Your task to perform on an android device: Open battery settings Image 0: 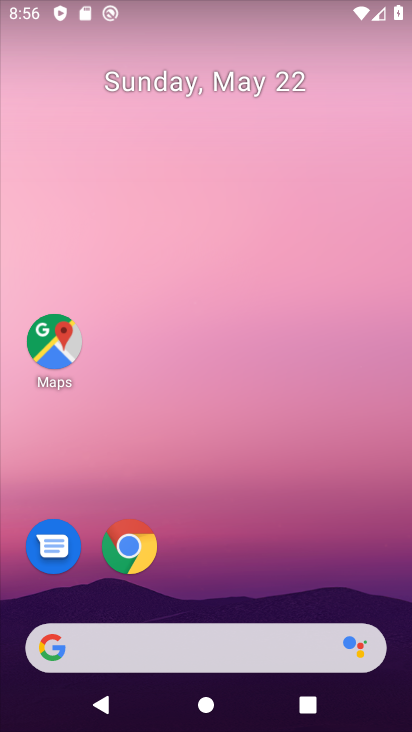
Step 0: drag from (198, 601) to (320, 0)
Your task to perform on an android device: Open battery settings Image 1: 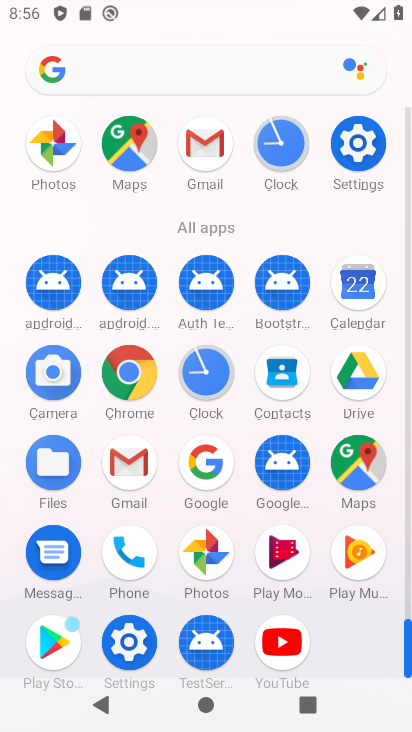
Step 1: click (360, 141)
Your task to perform on an android device: Open battery settings Image 2: 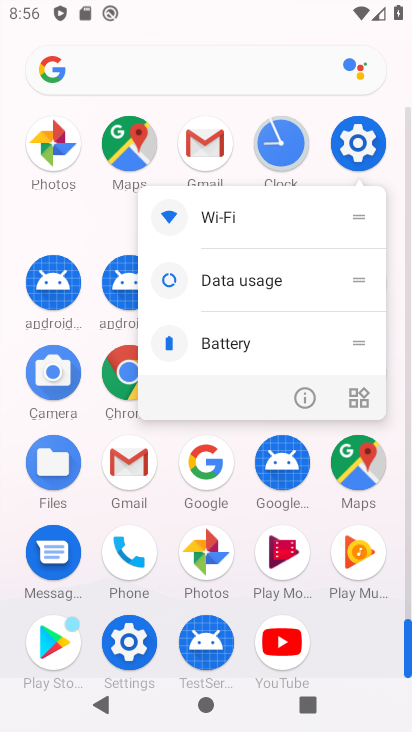
Step 2: click (299, 399)
Your task to perform on an android device: Open battery settings Image 3: 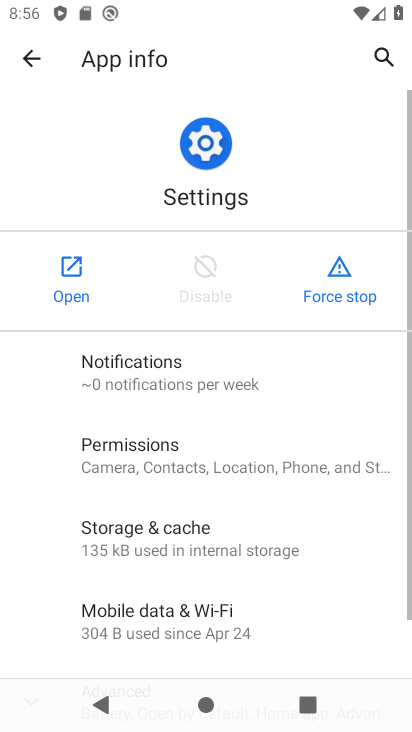
Step 3: click (84, 293)
Your task to perform on an android device: Open battery settings Image 4: 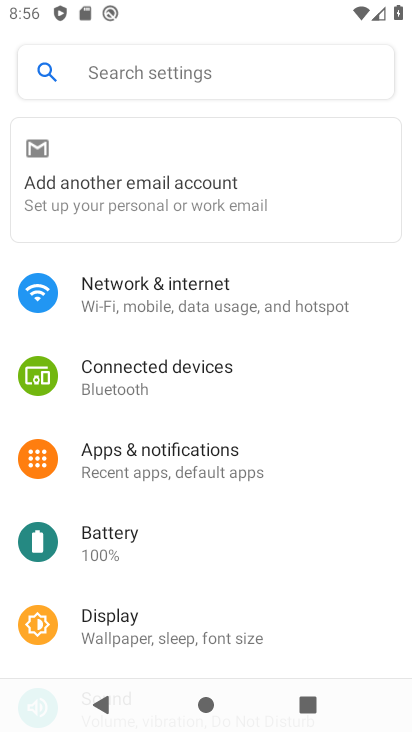
Step 4: drag from (184, 509) to (219, 96)
Your task to perform on an android device: Open battery settings Image 5: 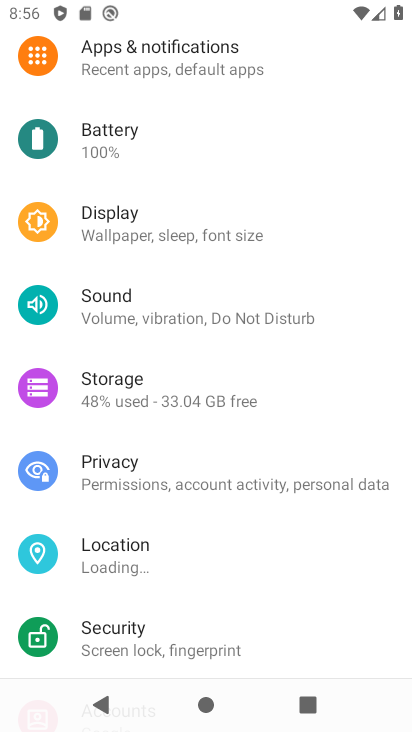
Step 5: click (156, 147)
Your task to perform on an android device: Open battery settings Image 6: 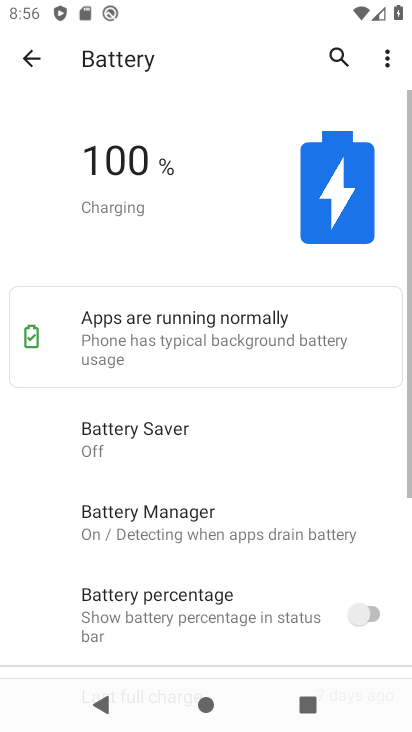
Step 6: task complete